Your task to perform on an android device: Show me popular games on the Play Store Image 0: 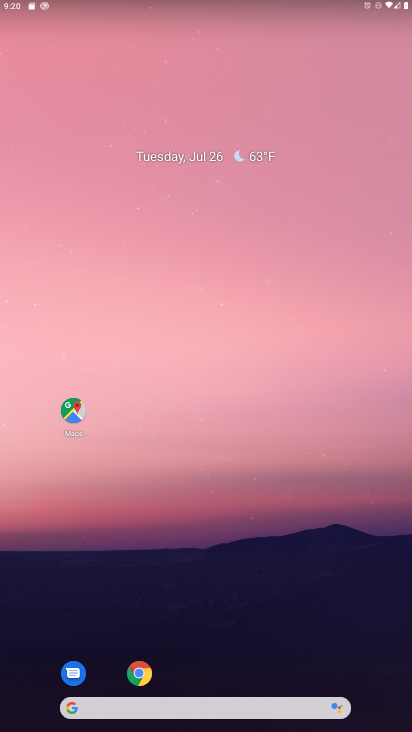
Step 0: drag from (382, 644) to (106, 10)
Your task to perform on an android device: Show me popular games on the Play Store Image 1: 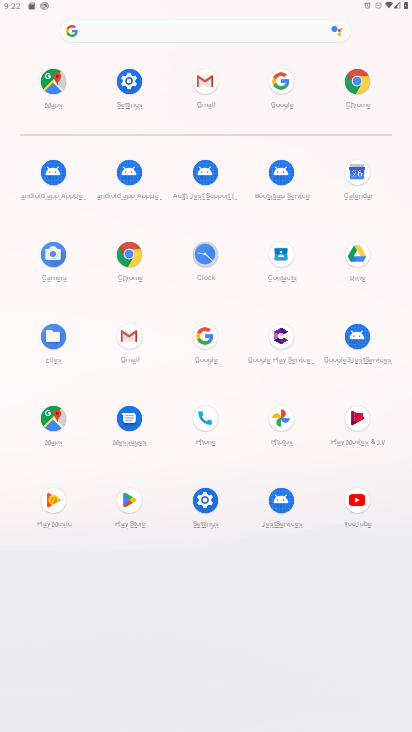
Step 1: click (120, 492)
Your task to perform on an android device: Show me popular games on the Play Store Image 2: 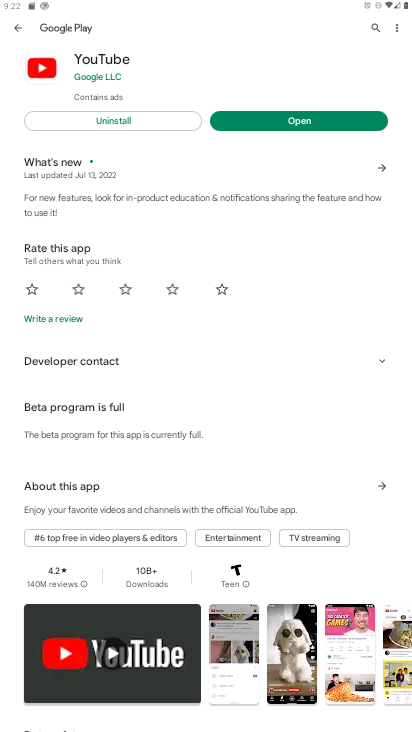
Step 2: press back button
Your task to perform on an android device: Show me popular games on the Play Store Image 3: 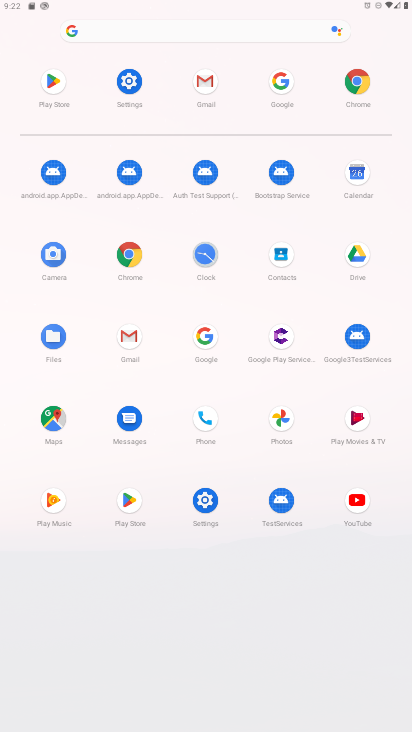
Step 3: click (120, 499)
Your task to perform on an android device: Show me popular games on the Play Store Image 4: 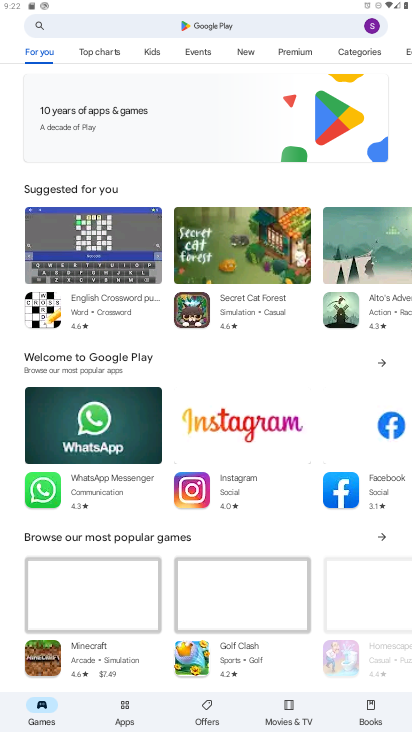
Step 4: click (137, 27)
Your task to perform on an android device: Show me popular games on the Play Store Image 5: 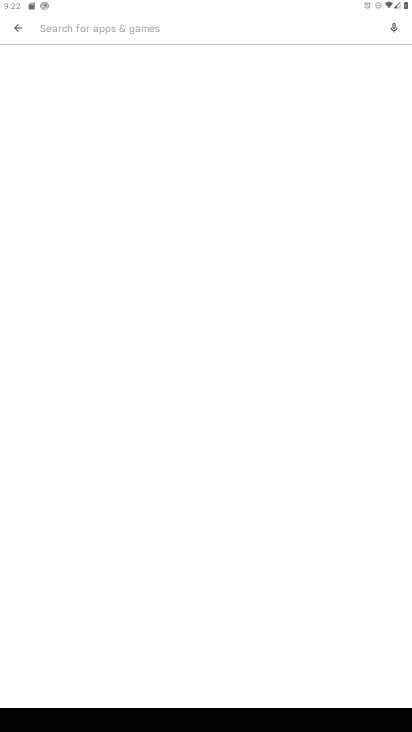
Step 5: type "popular games"
Your task to perform on an android device: Show me popular games on the Play Store Image 6: 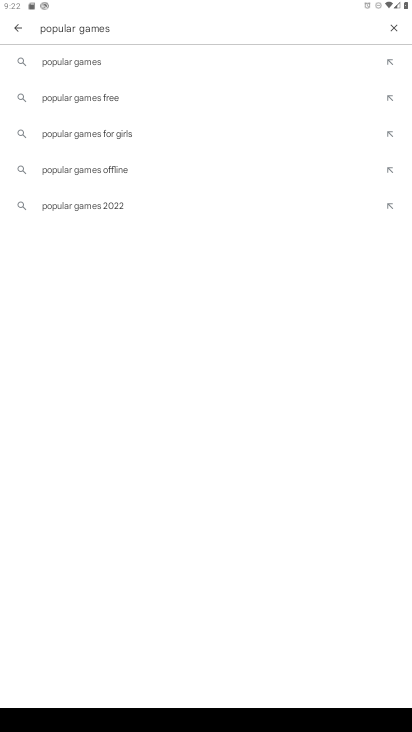
Step 6: click (60, 66)
Your task to perform on an android device: Show me popular games on the Play Store Image 7: 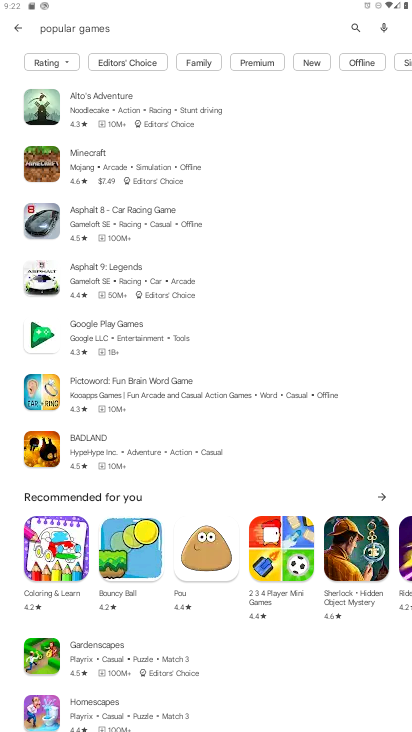
Step 7: task complete